Your task to perform on an android device: Search for sushi restaurants on Maps Image 0: 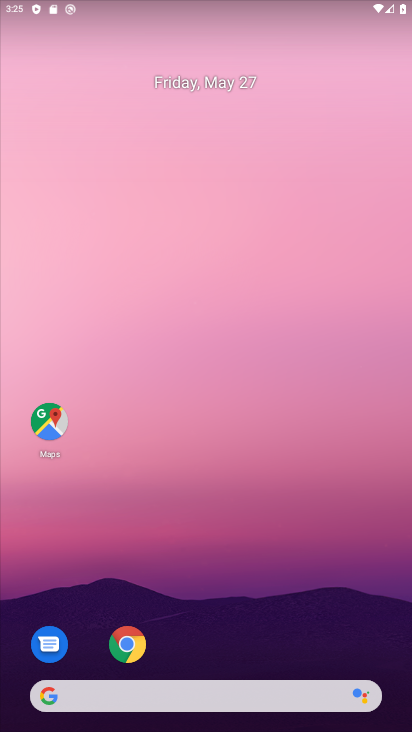
Step 0: click (63, 425)
Your task to perform on an android device: Search for sushi restaurants on Maps Image 1: 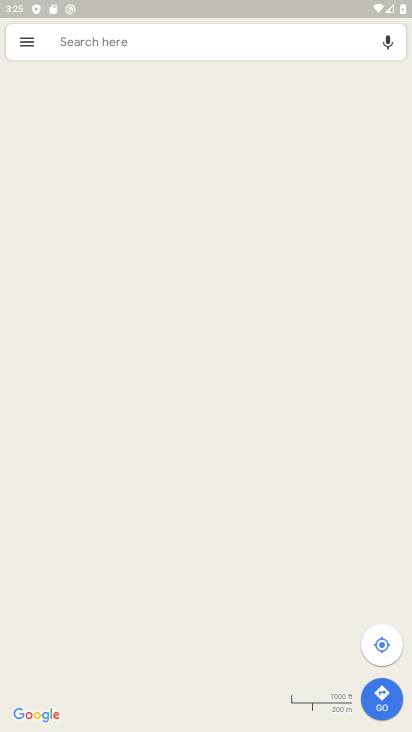
Step 1: click (165, 45)
Your task to perform on an android device: Search for sushi restaurants on Maps Image 2: 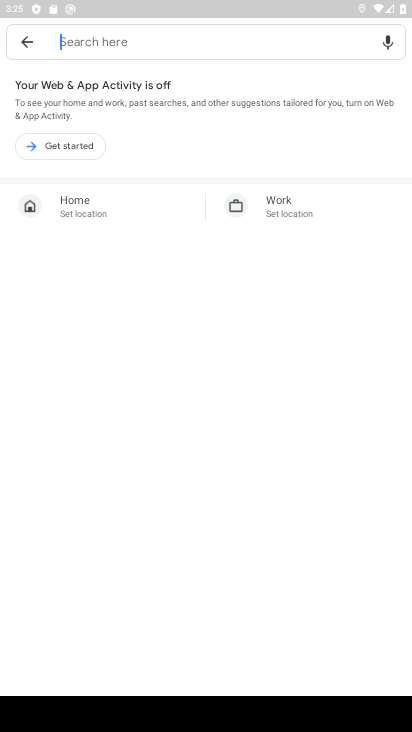
Step 2: type "sushi restaurants"
Your task to perform on an android device: Search for sushi restaurants on Maps Image 3: 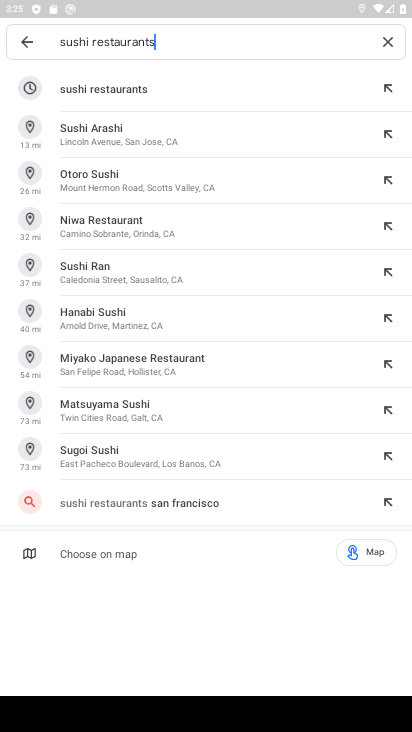
Step 3: click (169, 96)
Your task to perform on an android device: Search for sushi restaurants on Maps Image 4: 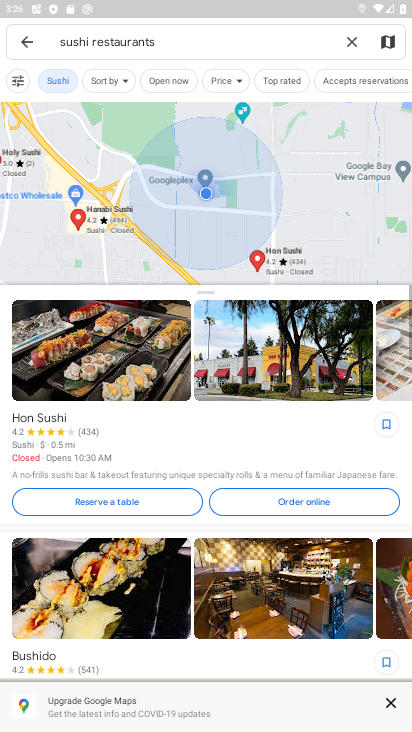
Step 4: task complete